Your task to perform on an android device: Open maps Image 0: 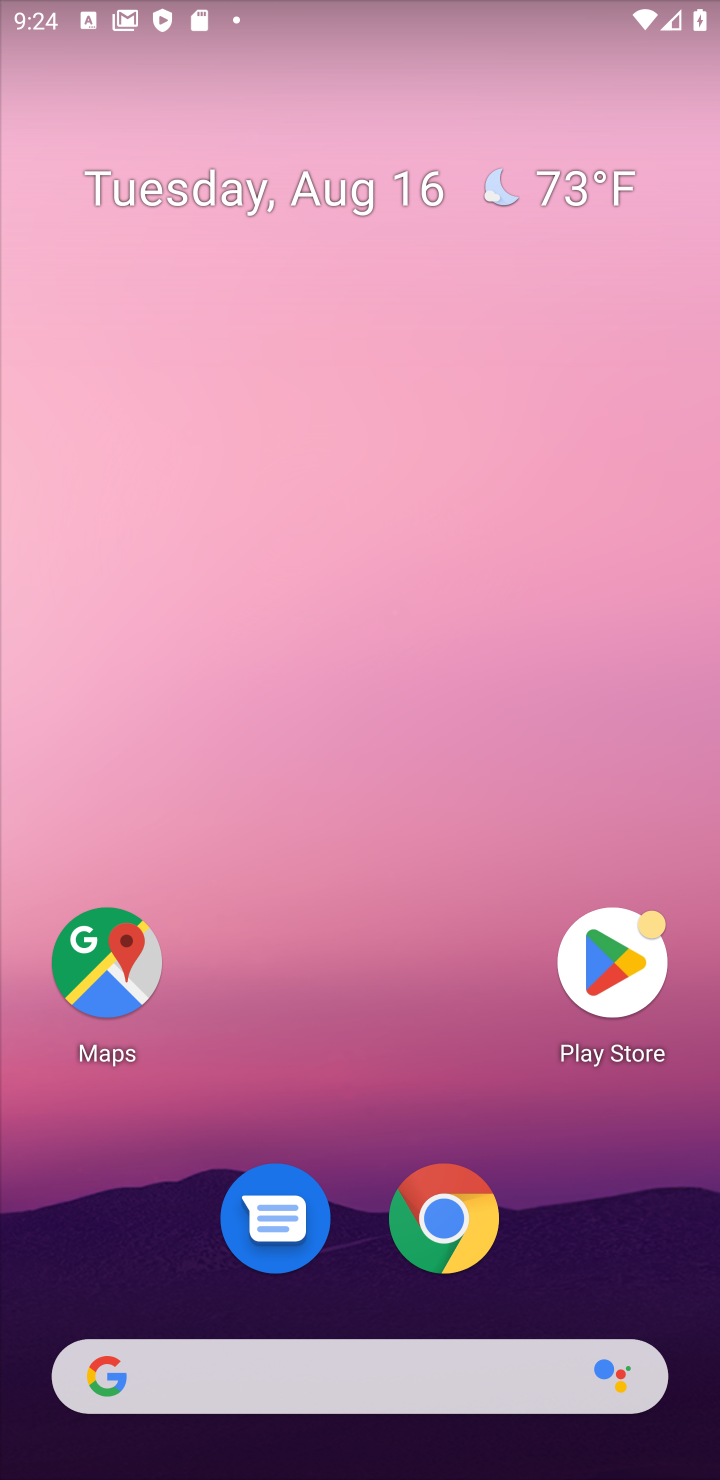
Step 0: task complete